Your task to perform on an android device: Show me popular games on the Play Store Image 0: 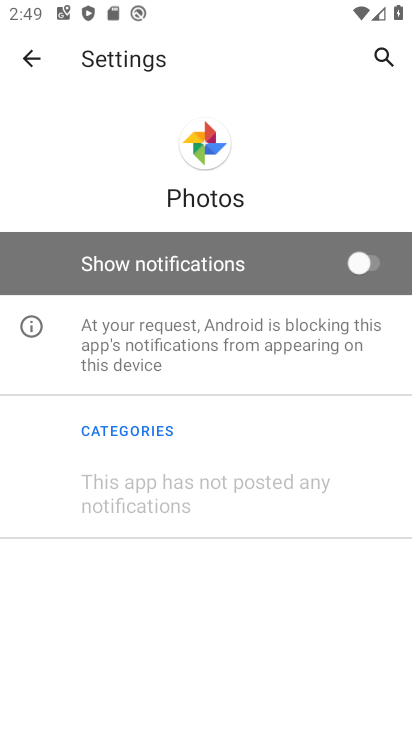
Step 0: press home button
Your task to perform on an android device: Show me popular games on the Play Store Image 1: 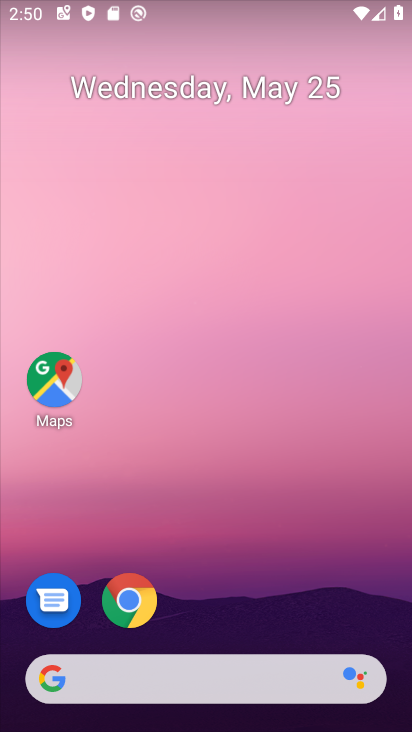
Step 1: drag from (45, 551) to (277, 101)
Your task to perform on an android device: Show me popular games on the Play Store Image 2: 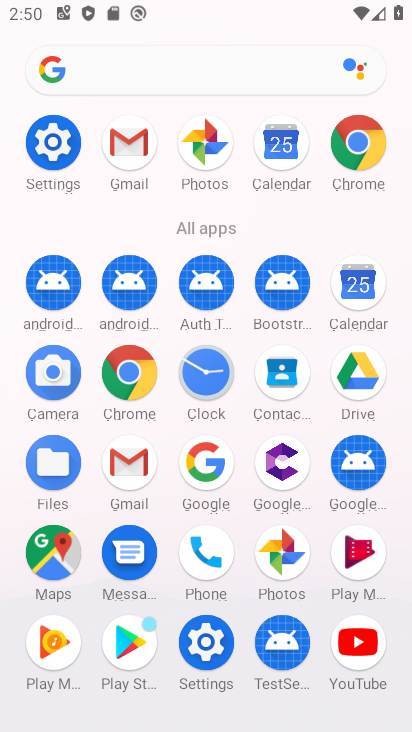
Step 2: click (120, 642)
Your task to perform on an android device: Show me popular games on the Play Store Image 3: 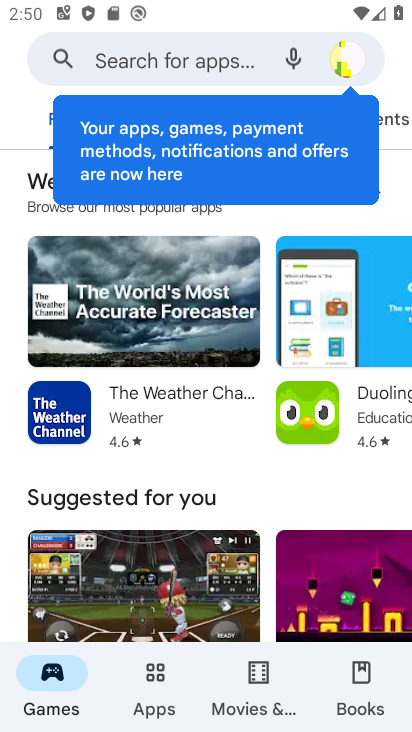
Step 3: task complete